Your task to perform on an android device: Open calendar and show me the third week of next month Image 0: 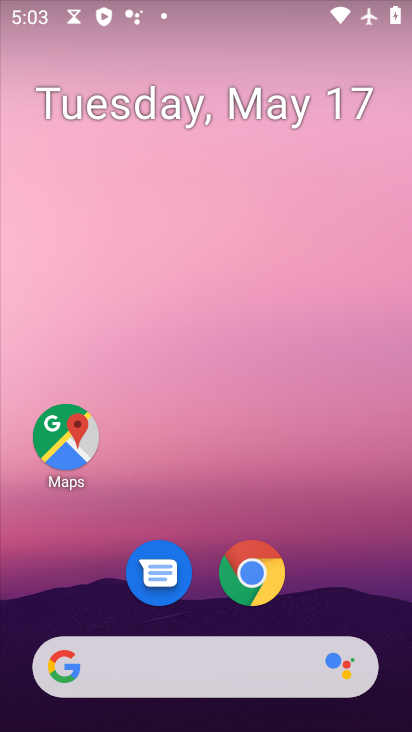
Step 0: drag from (353, 643) to (231, 202)
Your task to perform on an android device: Open calendar and show me the third week of next month Image 1: 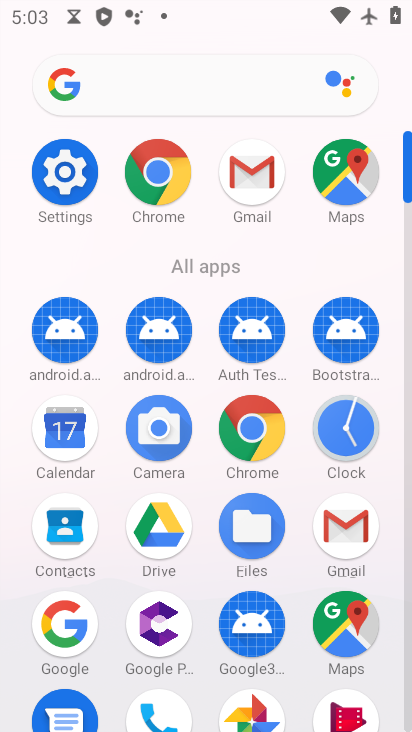
Step 1: click (52, 440)
Your task to perform on an android device: Open calendar and show me the third week of next month Image 2: 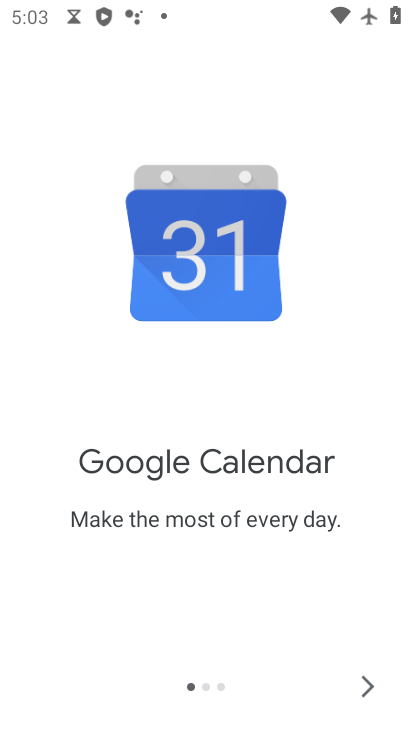
Step 2: click (357, 675)
Your task to perform on an android device: Open calendar and show me the third week of next month Image 3: 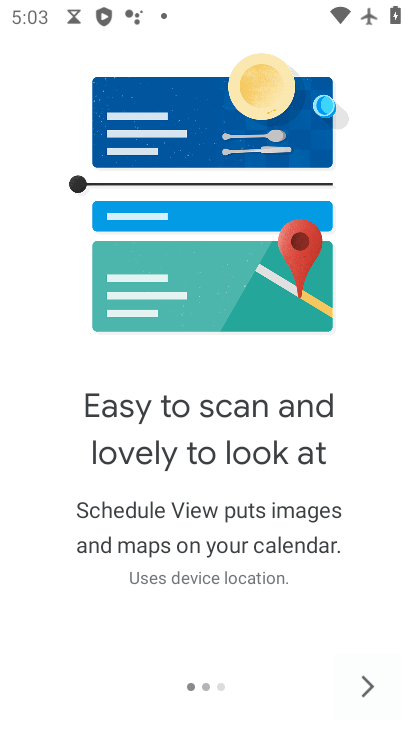
Step 3: click (358, 676)
Your task to perform on an android device: Open calendar and show me the third week of next month Image 4: 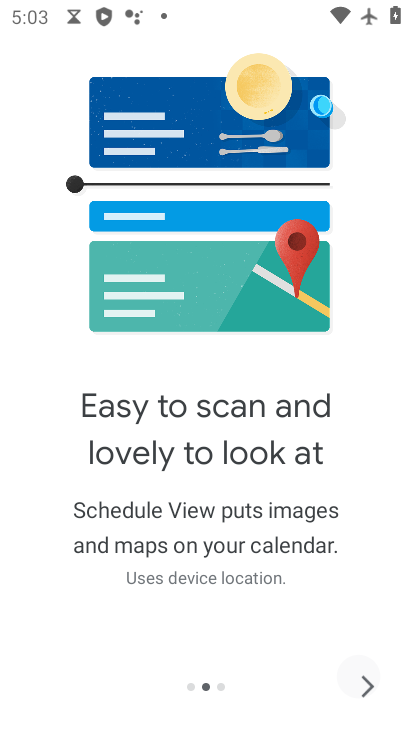
Step 4: click (358, 676)
Your task to perform on an android device: Open calendar and show me the third week of next month Image 5: 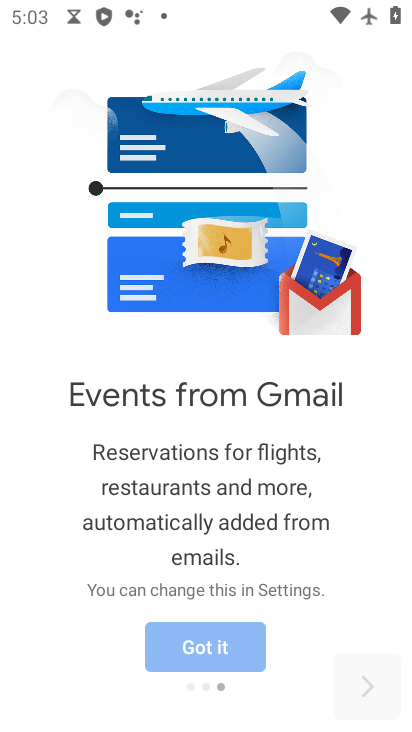
Step 5: click (358, 676)
Your task to perform on an android device: Open calendar and show me the third week of next month Image 6: 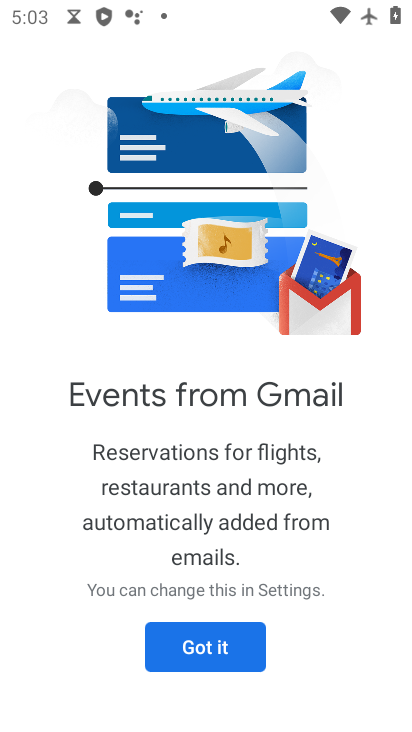
Step 6: click (358, 676)
Your task to perform on an android device: Open calendar and show me the third week of next month Image 7: 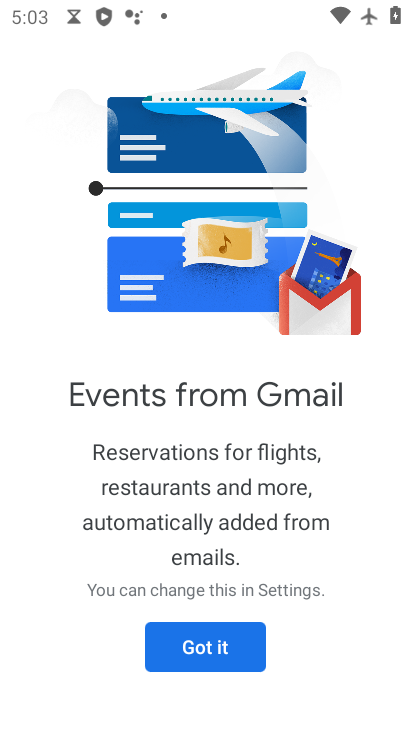
Step 7: click (230, 640)
Your task to perform on an android device: Open calendar and show me the third week of next month Image 8: 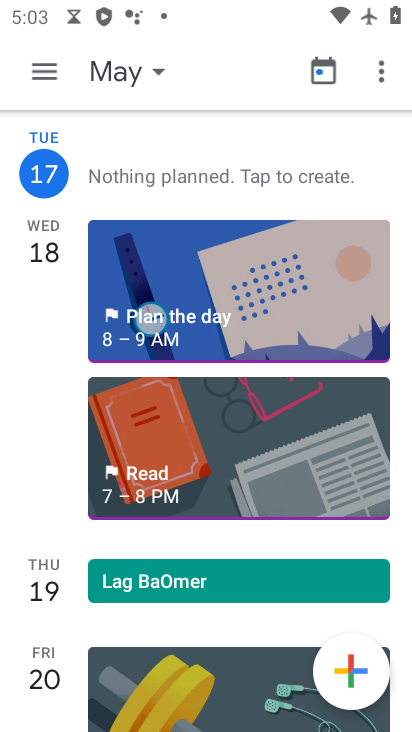
Step 8: click (161, 64)
Your task to perform on an android device: Open calendar and show me the third week of next month Image 9: 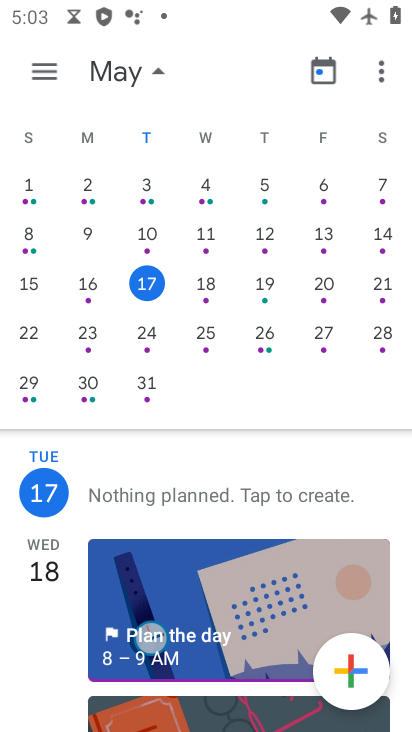
Step 9: drag from (289, 285) to (13, 318)
Your task to perform on an android device: Open calendar and show me the third week of next month Image 10: 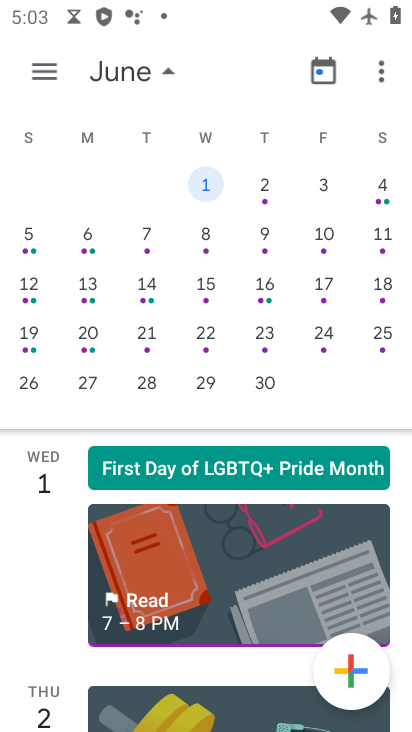
Step 10: click (200, 282)
Your task to perform on an android device: Open calendar and show me the third week of next month Image 11: 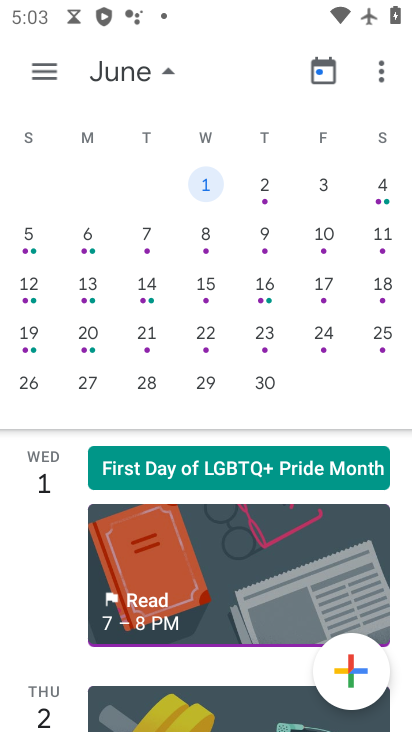
Step 11: click (201, 282)
Your task to perform on an android device: Open calendar and show me the third week of next month Image 12: 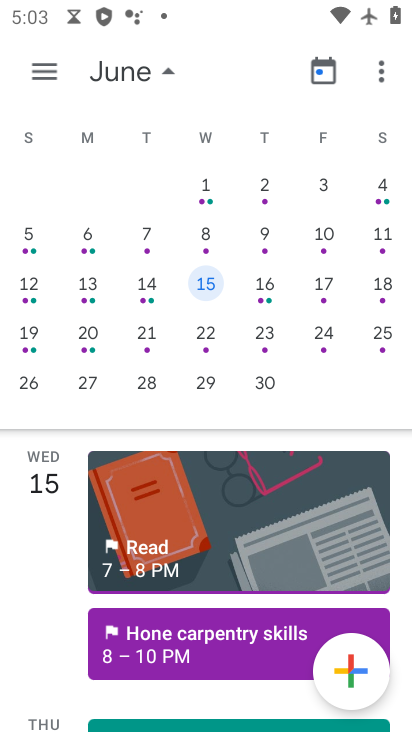
Step 12: task complete